Your task to perform on an android device: toggle notification dots Image 0: 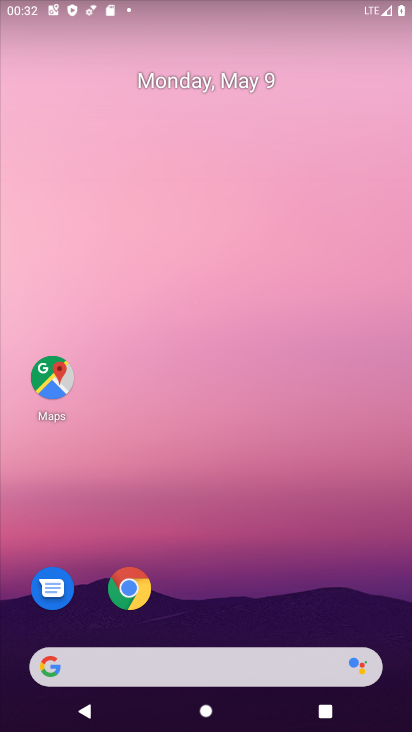
Step 0: drag from (245, 571) to (127, 4)
Your task to perform on an android device: toggle notification dots Image 1: 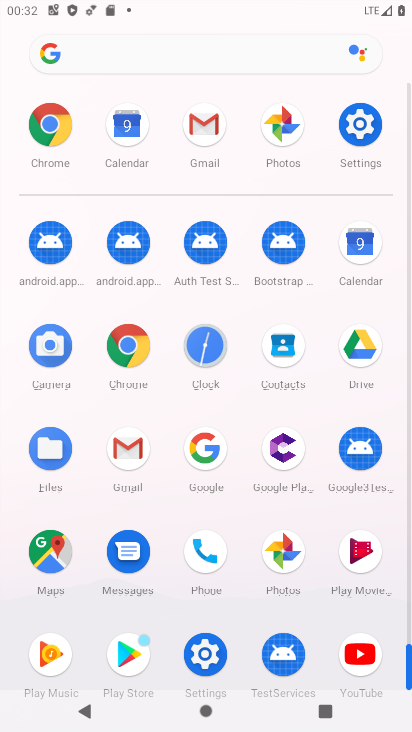
Step 1: click (358, 126)
Your task to perform on an android device: toggle notification dots Image 2: 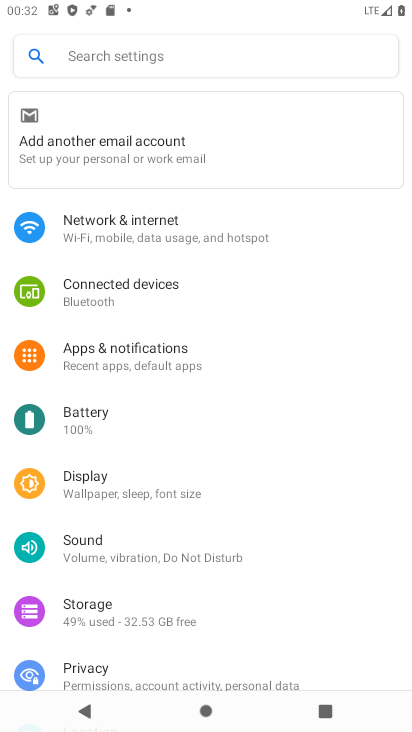
Step 2: click (138, 347)
Your task to perform on an android device: toggle notification dots Image 3: 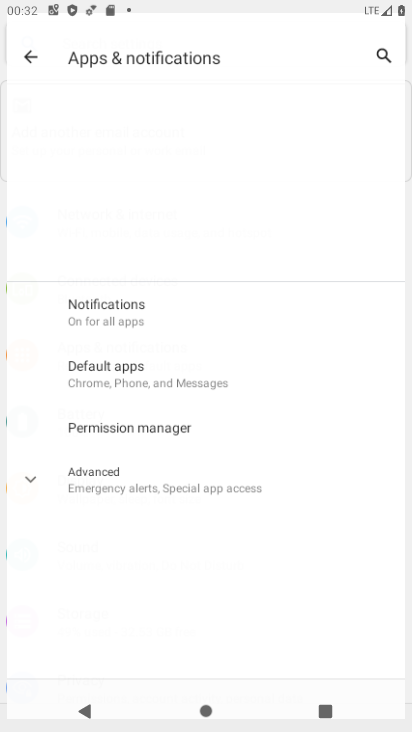
Step 3: click (138, 347)
Your task to perform on an android device: toggle notification dots Image 4: 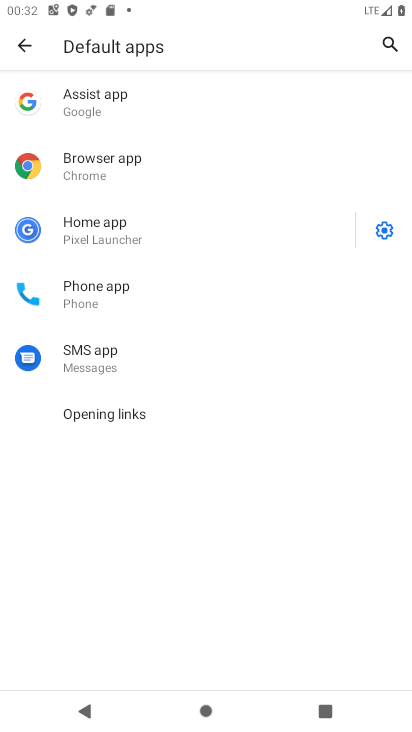
Step 4: click (24, 42)
Your task to perform on an android device: toggle notification dots Image 5: 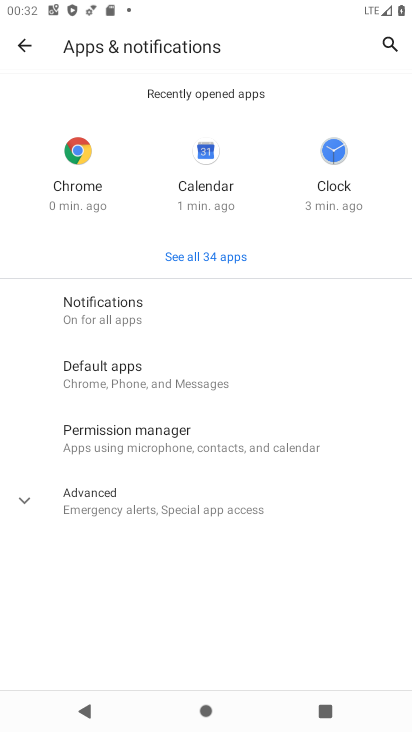
Step 5: click (86, 301)
Your task to perform on an android device: toggle notification dots Image 6: 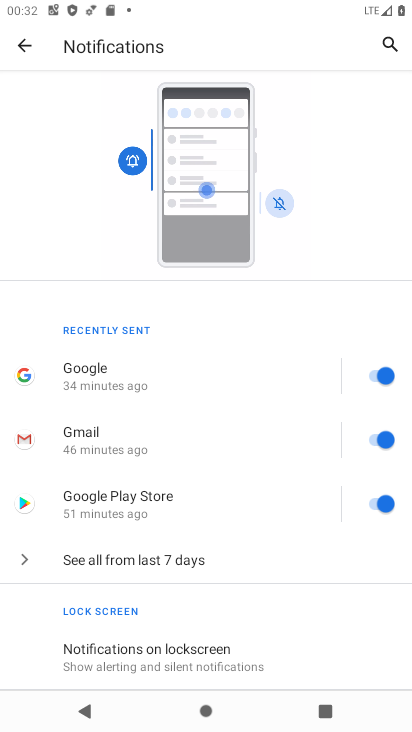
Step 6: drag from (285, 554) to (225, 49)
Your task to perform on an android device: toggle notification dots Image 7: 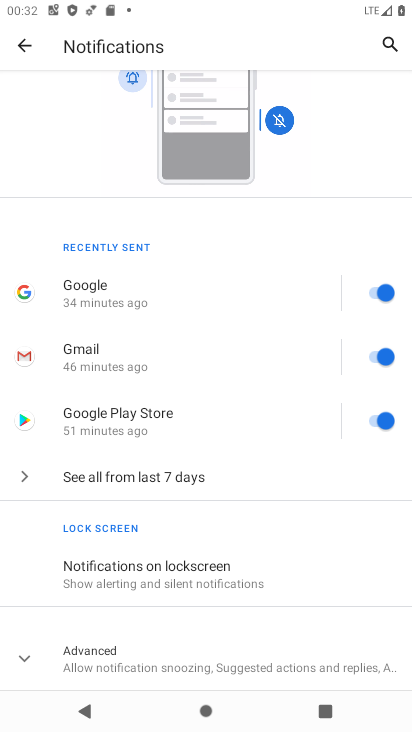
Step 7: click (26, 658)
Your task to perform on an android device: toggle notification dots Image 8: 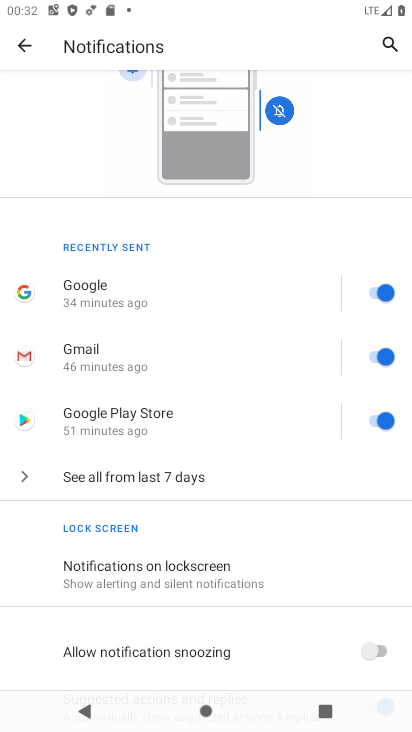
Step 8: drag from (255, 569) to (244, 232)
Your task to perform on an android device: toggle notification dots Image 9: 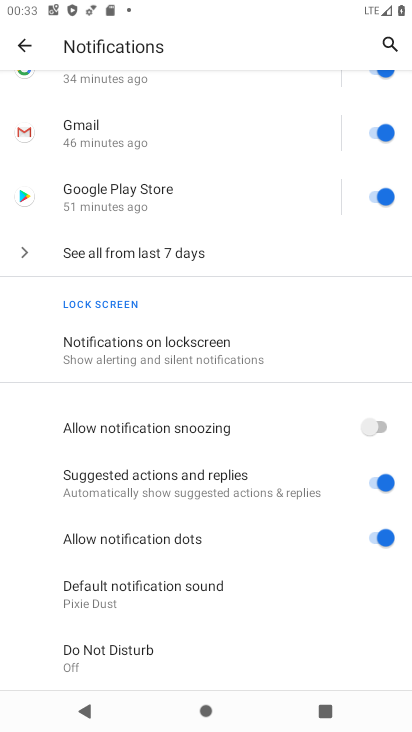
Step 9: click (386, 536)
Your task to perform on an android device: toggle notification dots Image 10: 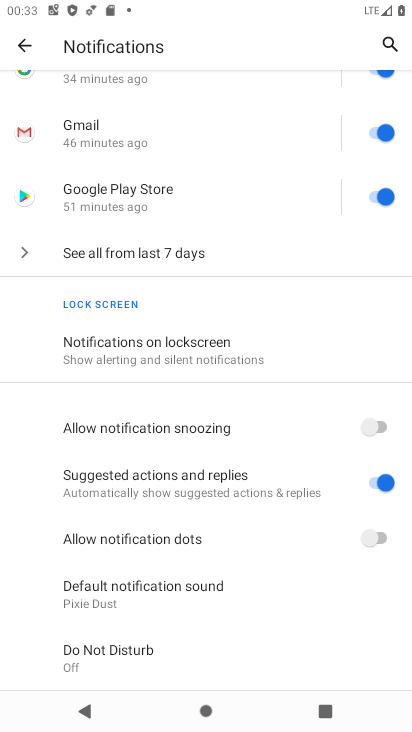
Step 10: task complete